Your task to perform on an android device: Open Google Chrome Image 0: 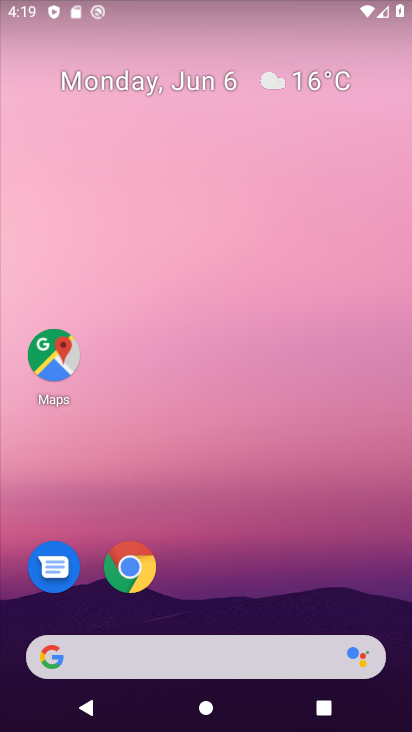
Step 0: drag from (163, 623) to (230, 289)
Your task to perform on an android device: Open Google Chrome Image 1: 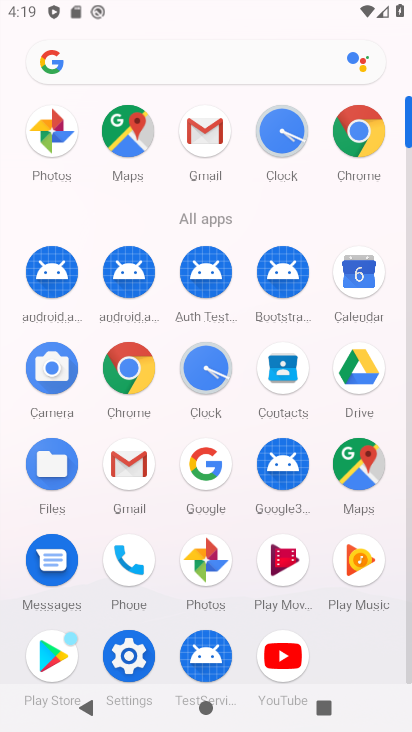
Step 1: click (120, 386)
Your task to perform on an android device: Open Google Chrome Image 2: 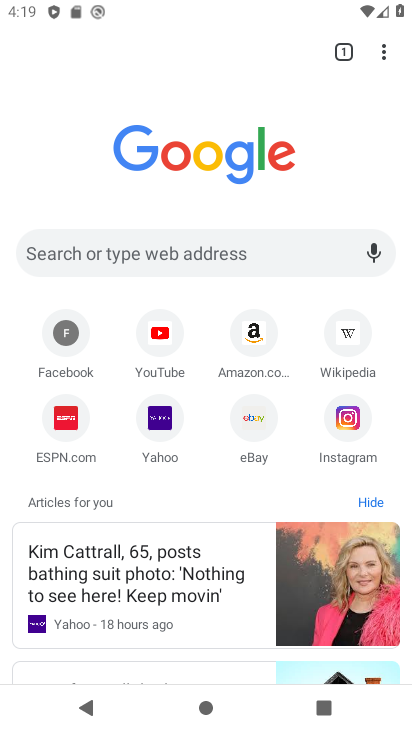
Step 2: task complete